Your task to perform on an android device: Open display settings Image 0: 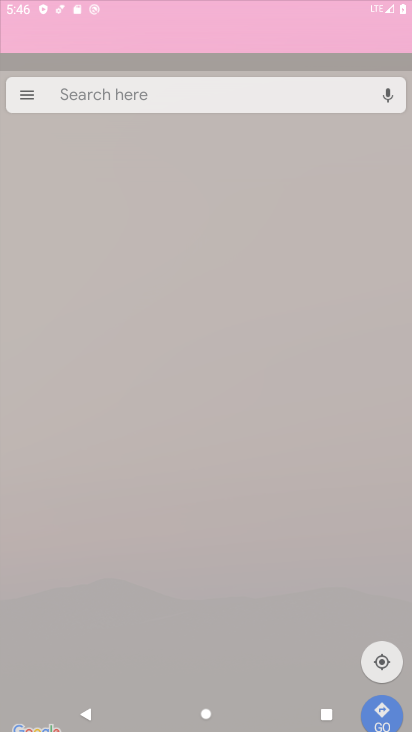
Step 0: click (184, 8)
Your task to perform on an android device: Open display settings Image 1: 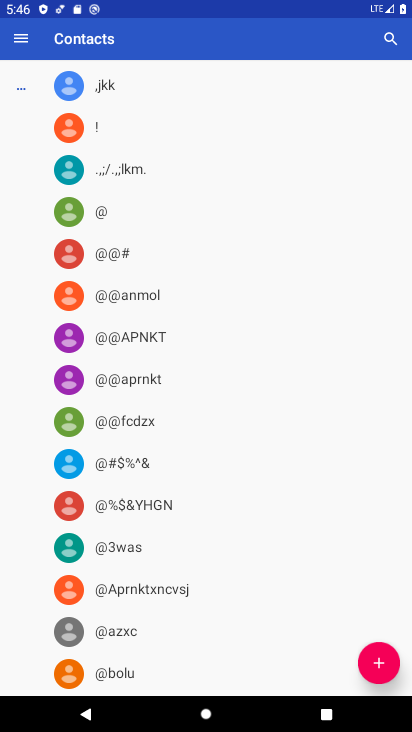
Step 1: press home button
Your task to perform on an android device: Open display settings Image 2: 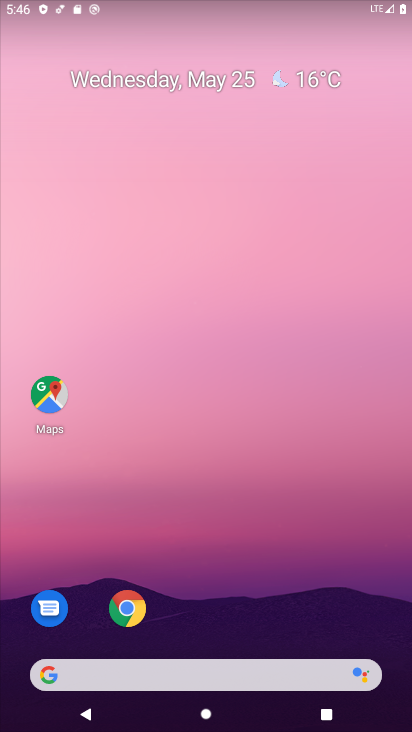
Step 2: drag from (247, 692) to (234, 190)
Your task to perform on an android device: Open display settings Image 3: 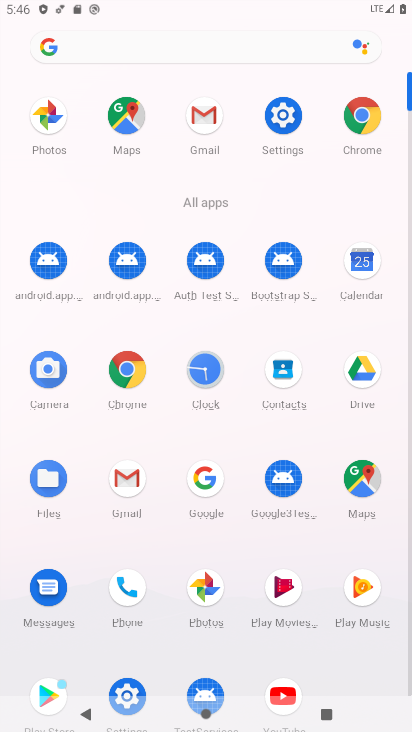
Step 3: click (290, 121)
Your task to perform on an android device: Open display settings Image 4: 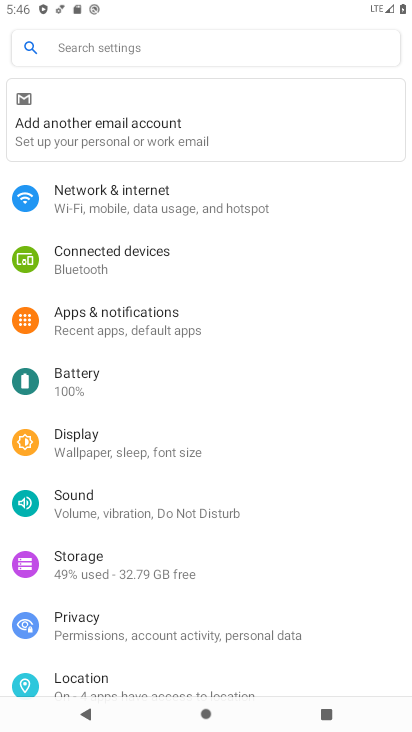
Step 4: click (103, 445)
Your task to perform on an android device: Open display settings Image 5: 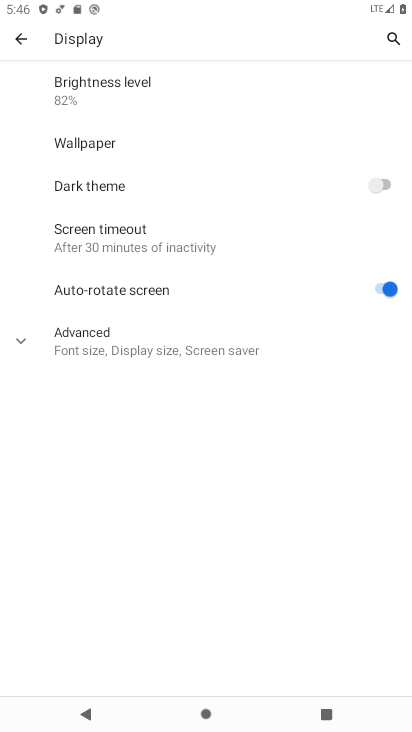
Step 5: task complete